Your task to perform on an android device: clear history in the chrome app Image 0: 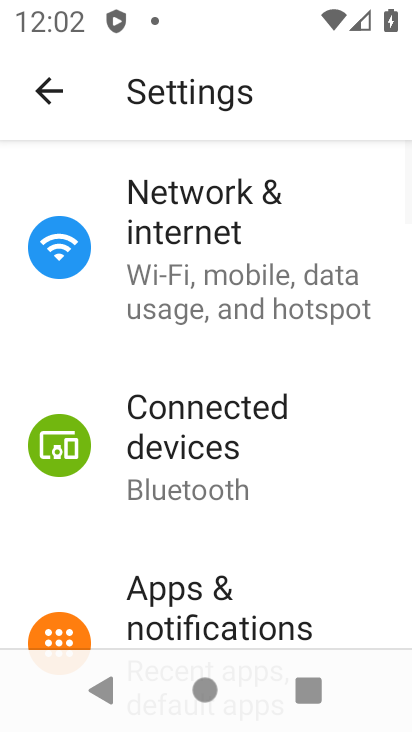
Step 0: press home button
Your task to perform on an android device: clear history in the chrome app Image 1: 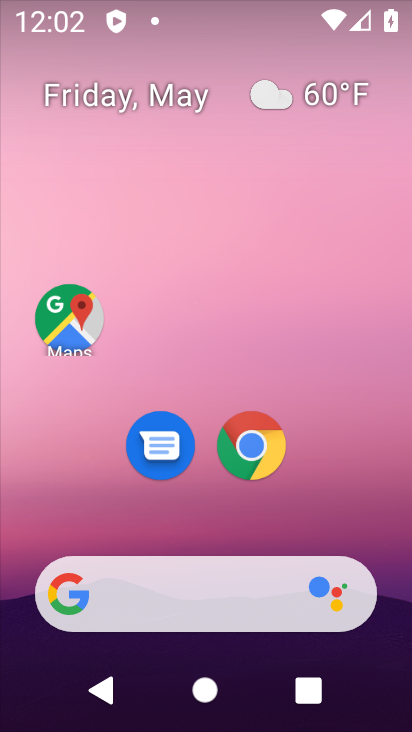
Step 1: click (242, 450)
Your task to perform on an android device: clear history in the chrome app Image 2: 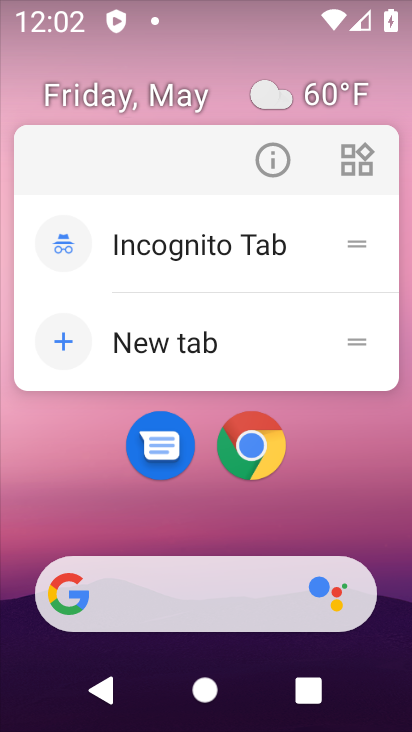
Step 2: click (258, 452)
Your task to perform on an android device: clear history in the chrome app Image 3: 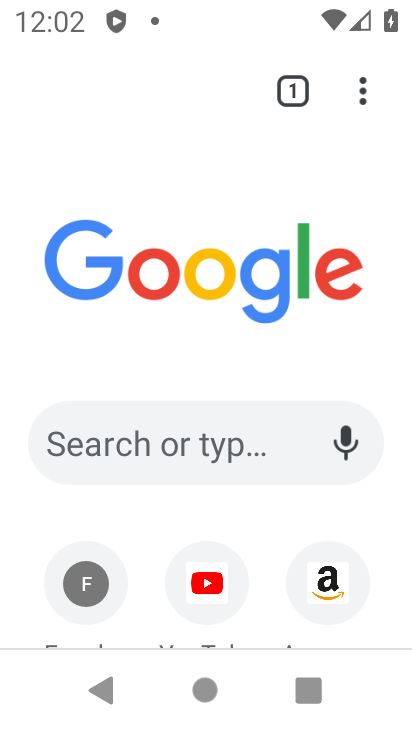
Step 3: drag from (364, 103) to (326, 253)
Your task to perform on an android device: clear history in the chrome app Image 4: 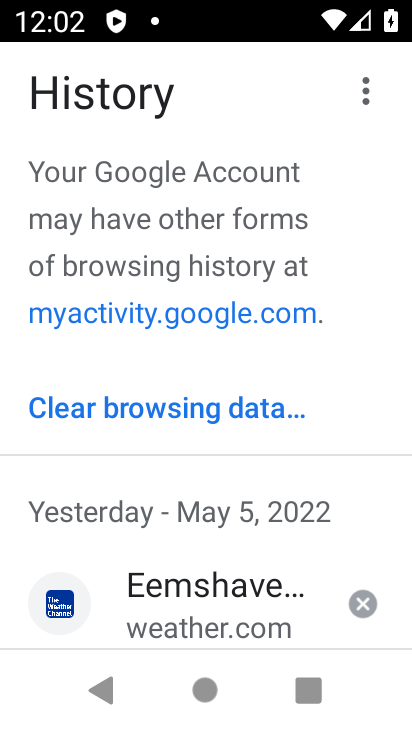
Step 4: click (214, 414)
Your task to perform on an android device: clear history in the chrome app Image 5: 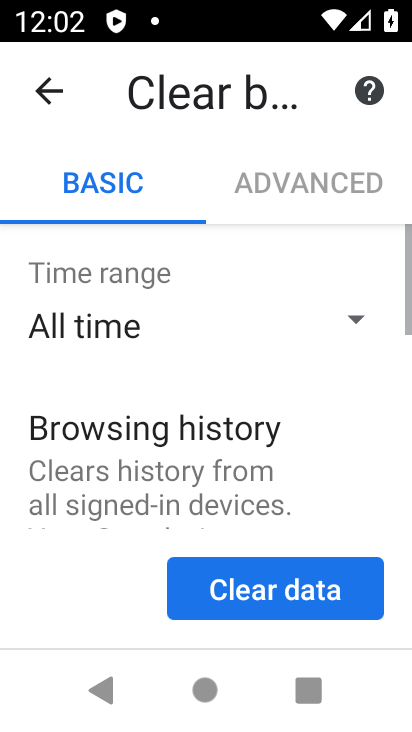
Step 5: drag from (268, 493) to (349, 238)
Your task to perform on an android device: clear history in the chrome app Image 6: 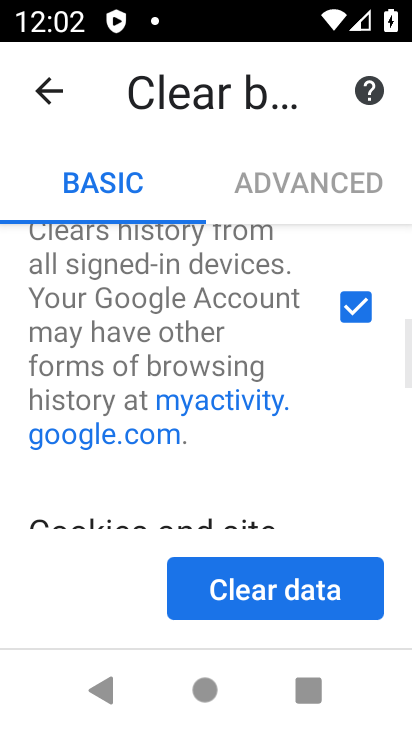
Step 6: drag from (258, 512) to (331, 189)
Your task to perform on an android device: clear history in the chrome app Image 7: 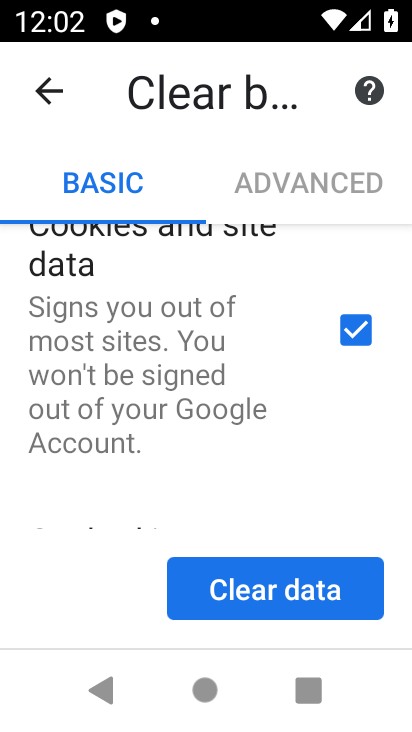
Step 7: click (348, 330)
Your task to perform on an android device: clear history in the chrome app Image 8: 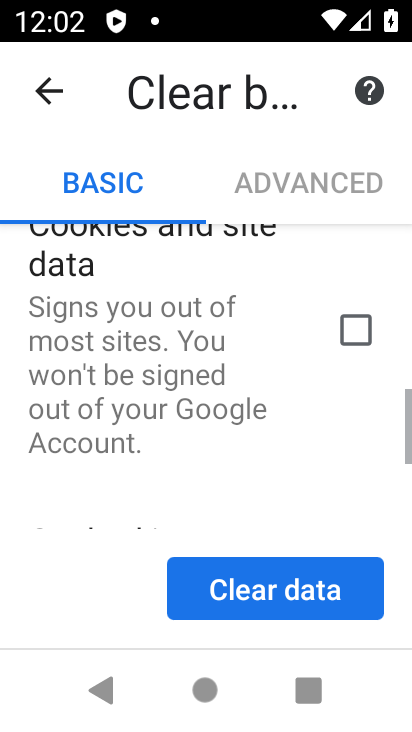
Step 8: drag from (212, 436) to (323, 121)
Your task to perform on an android device: clear history in the chrome app Image 9: 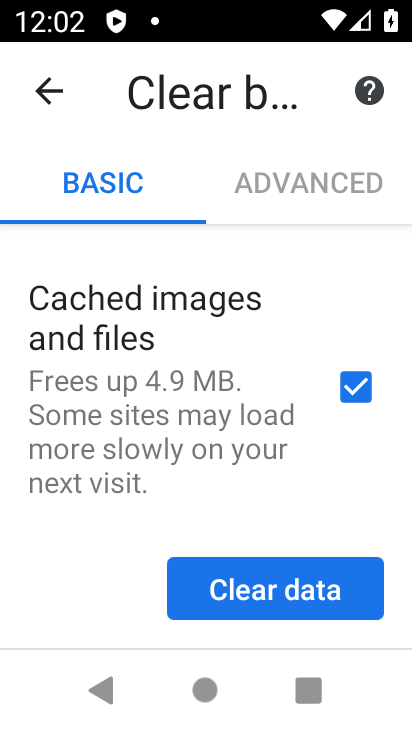
Step 9: click (350, 388)
Your task to perform on an android device: clear history in the chrome app Image 10: 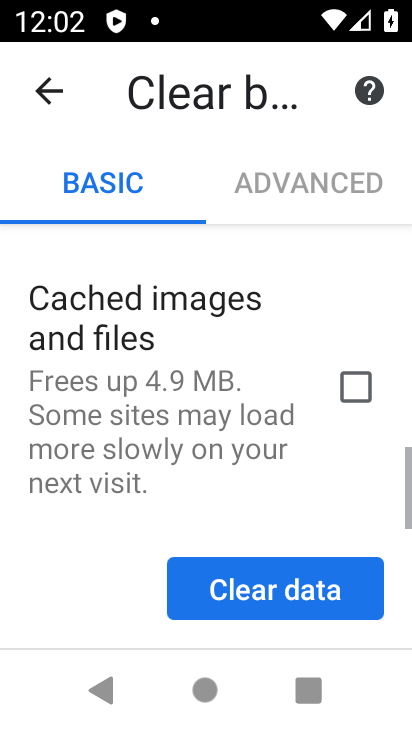
Step 10: click (316, 605)
Your task to perform on an android device: clear history in the chrome app Image 11: 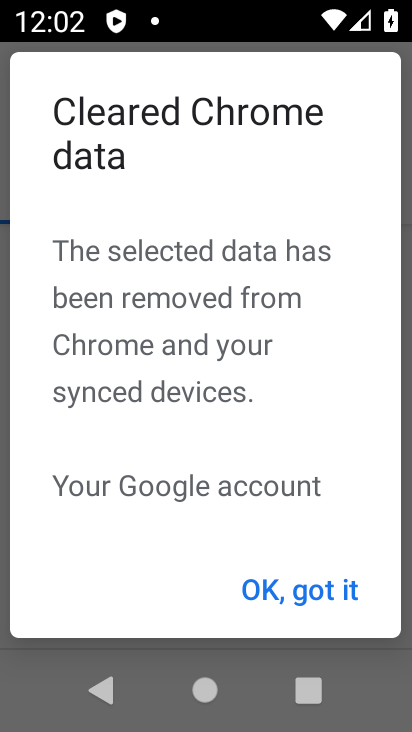
Step 11: click (314, 594)
Your task to perform on an android device: clear history in the chrome app Image 12: 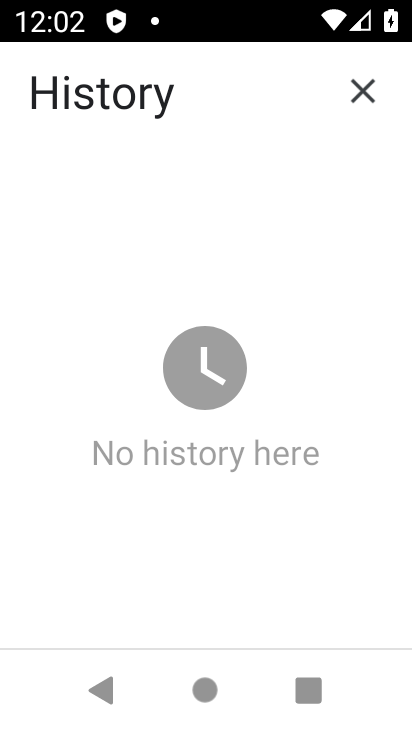
Step 12: task complete